Your task to perform on an android device: clear all cookies in the chrome app Image 0: 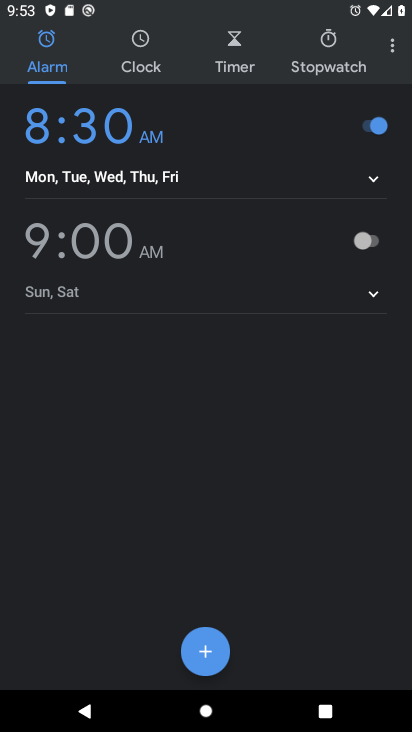
Step 0: press back button
Your task to perform on an android device: clear all cookies in the chrome app Image 1: 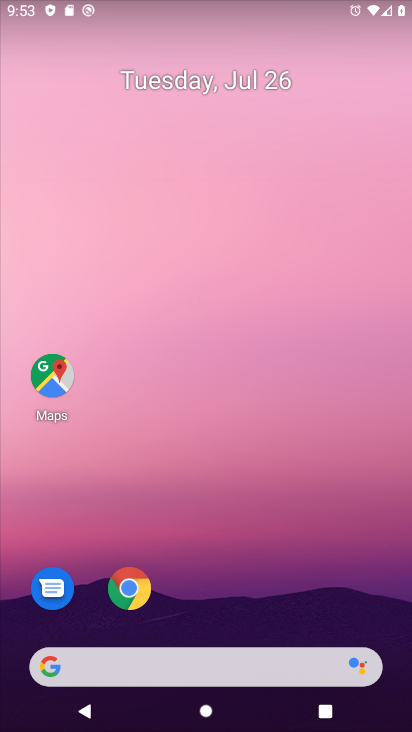
Step 1: click (128, 587)
Your task to perform on an android device: clear all cookies in the chrome app Image 2: 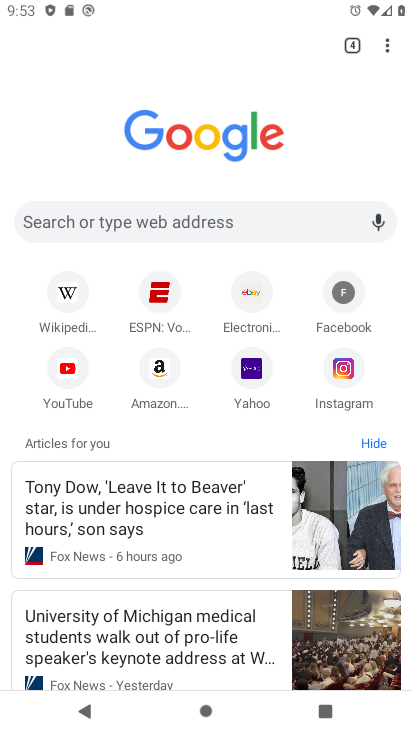
Step 2: drag from (386, 45) to (243, 390)
Your task to perform on an android device: clear all cookies in the chrome app Image 3: 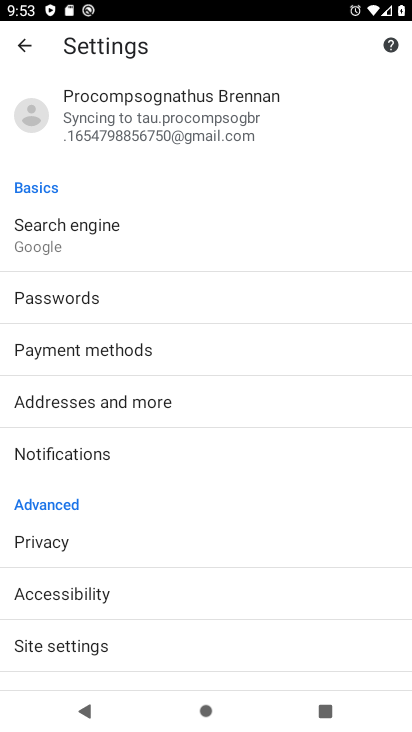
Step 3: click (18, 40)
Your task to perform on an android device: clear all cookies in the chrome app Image 4: 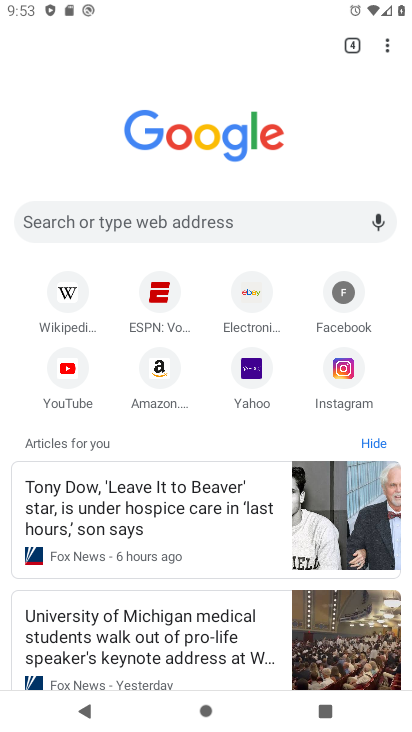
Step 4: drag from (389, 43) to (251, 253)
Your task to perform on an android device: clear all cookies in the chrome app Image 5: 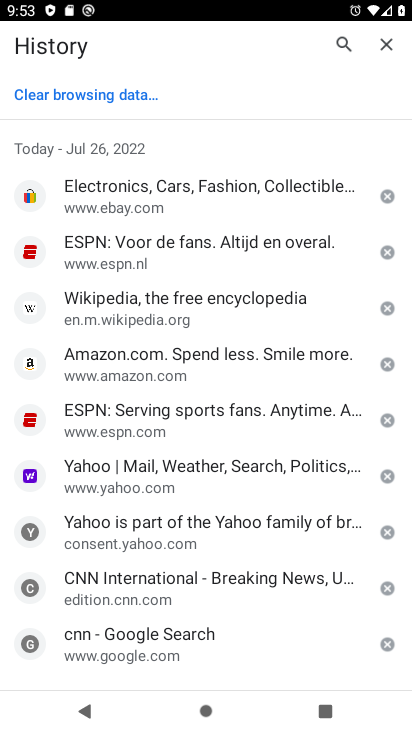
Step 5: click (120, 101)
Your task to perform on an android device: clear all cookies in the chrome app Image 6: 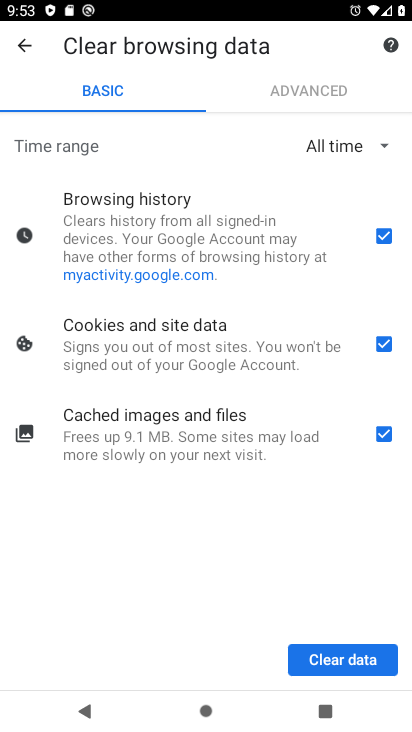
Step 6: click (385, 238)
Your task to perform on an android device: clear all cookies in the chrome app Image 7: 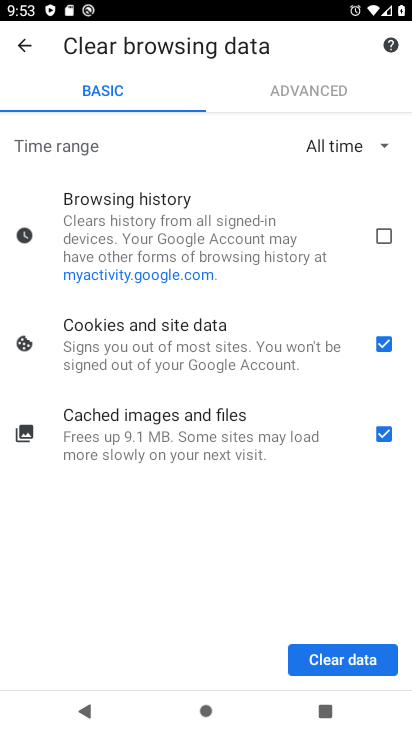
Step 7: click (388, 431)
Your task to perform on an android device: clear all cookies in the chrome app Image 8: 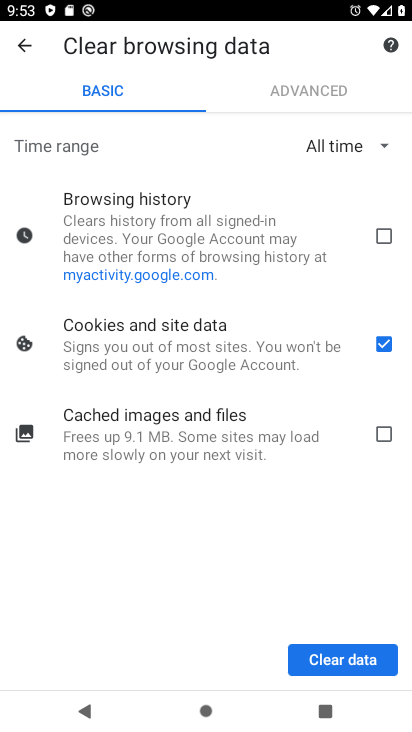
Step 8: click (355, 661)
Your task to perform on an android device: clear all cookies in the chrome app Image 9: 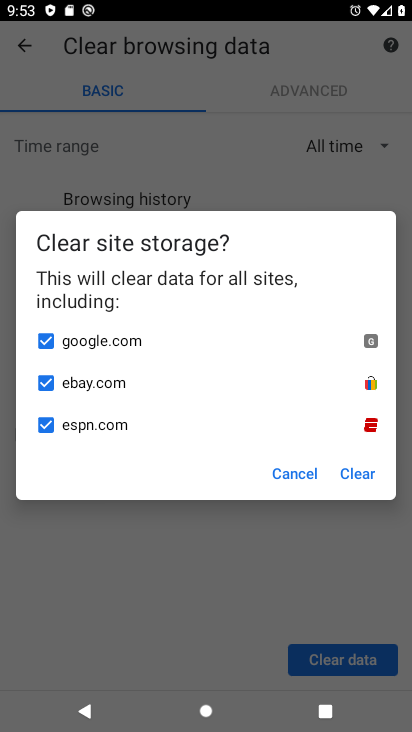
Step 9: click (361, 474)
Your task to perform on an android device: clear all cookies in the chrome app Image 10: 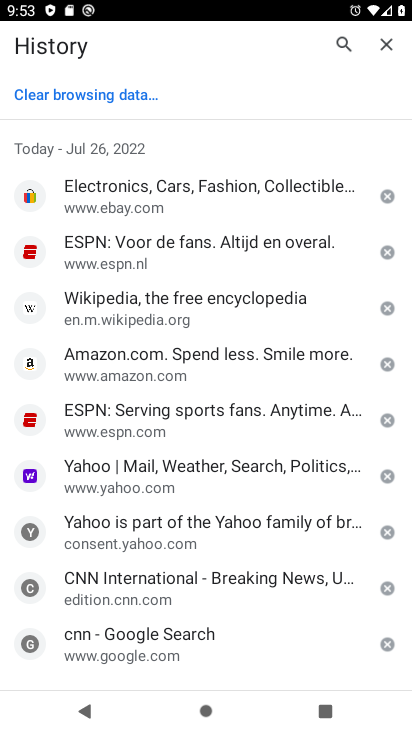
Step 10: task complete